Your task to perform on an android device: turn off airplane mode Image 0: 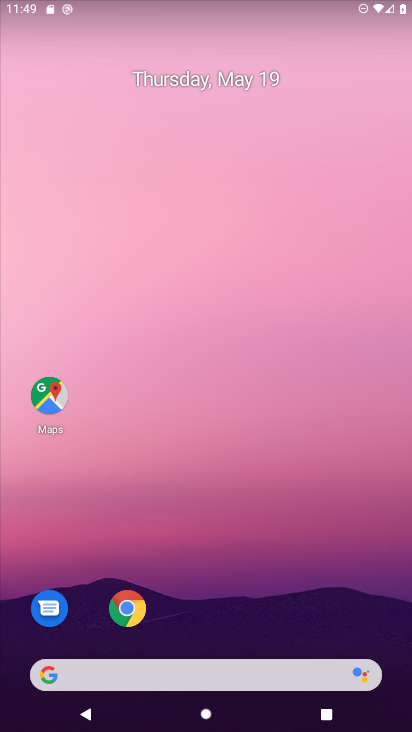
Step 0: drag from (301, 1) to (173, 617)
Your task to perform on an android device: turn off airplane mode Image 1: 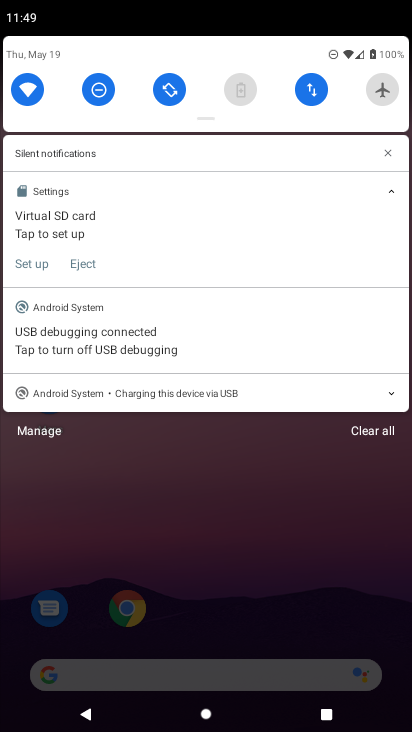
Step 1: task complete